Your task to perform on an android device: Clear the cart on target. Add "asus zenbook" to the cart on target Image 0: 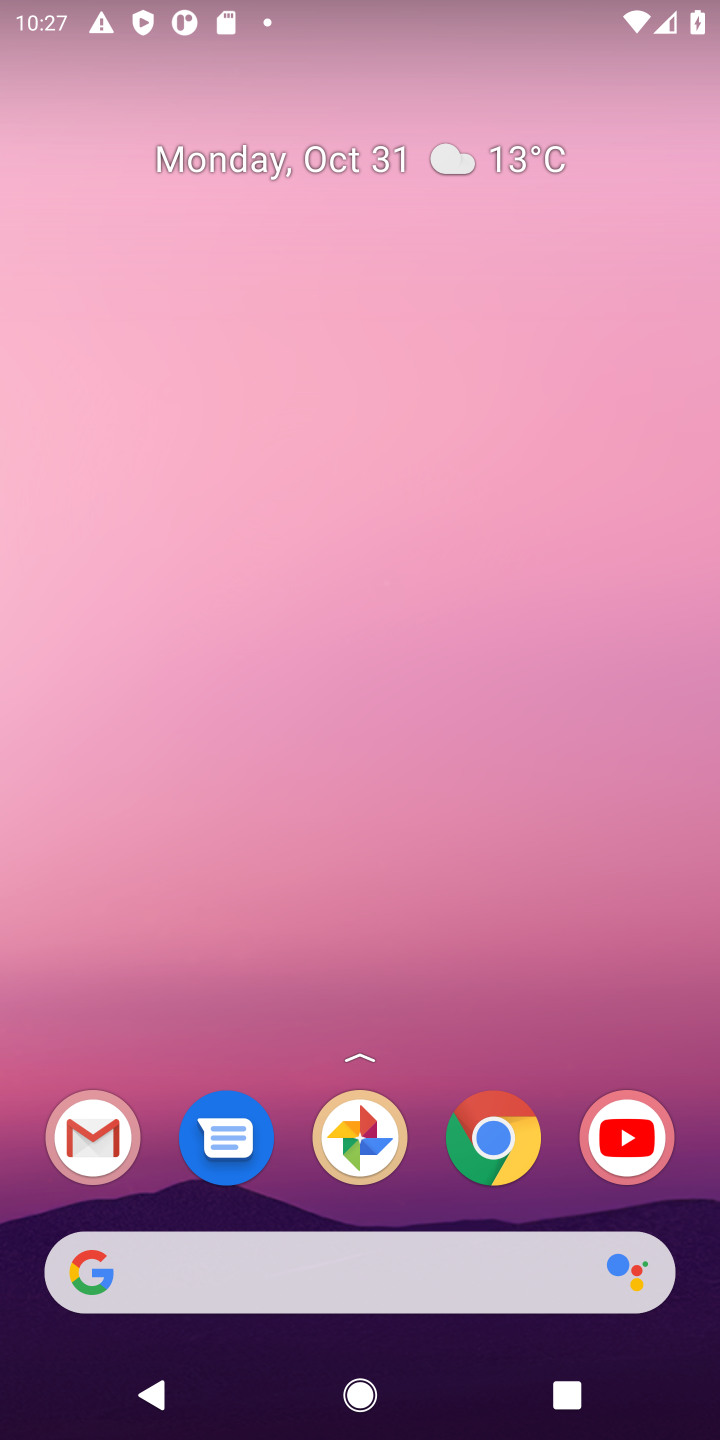
Step 0: click (474, 1157)
Your task to perform on an android device: Clear the cart on target. Add "asus zenbook" to the cart on target Image 1: 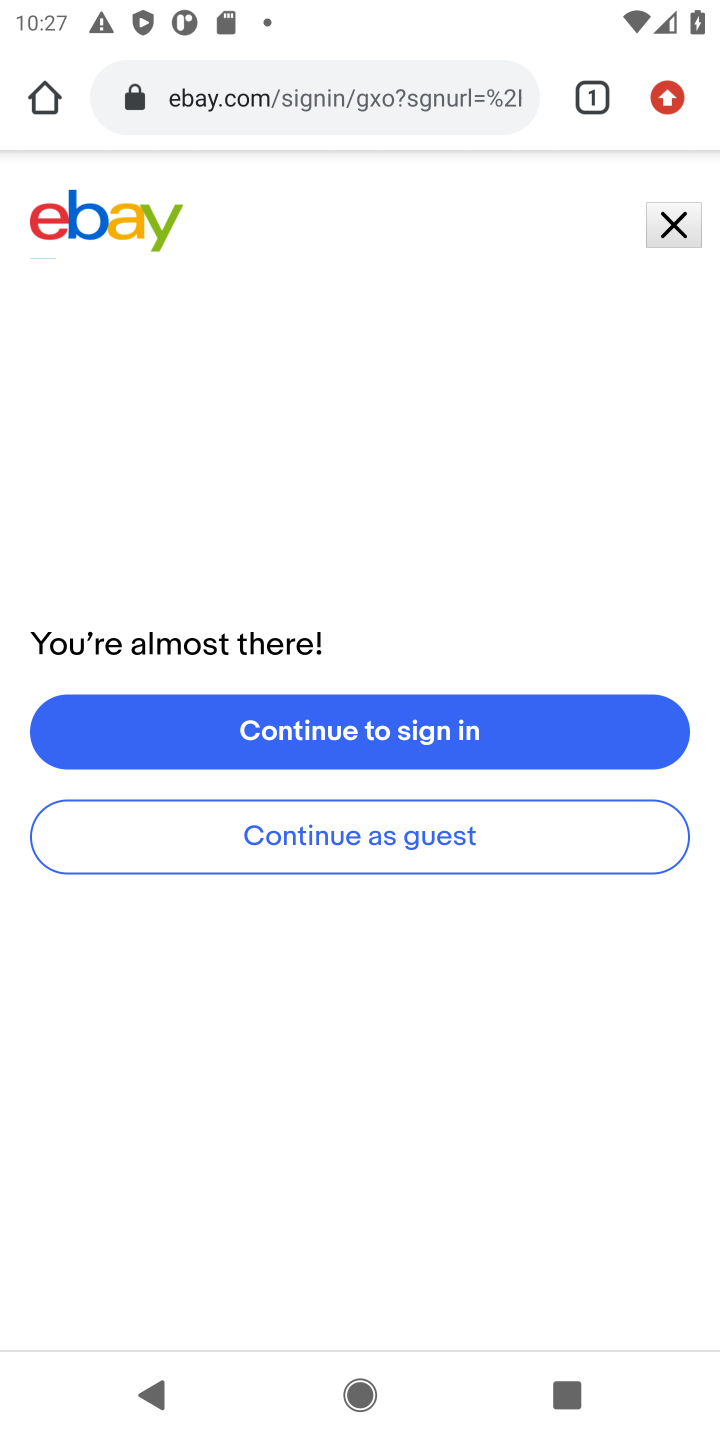
Step 1: click (251, 90)
Your task to perform on an android device: Clear the cart on target. Add "asus zenbook" to the cart on target Image 2: 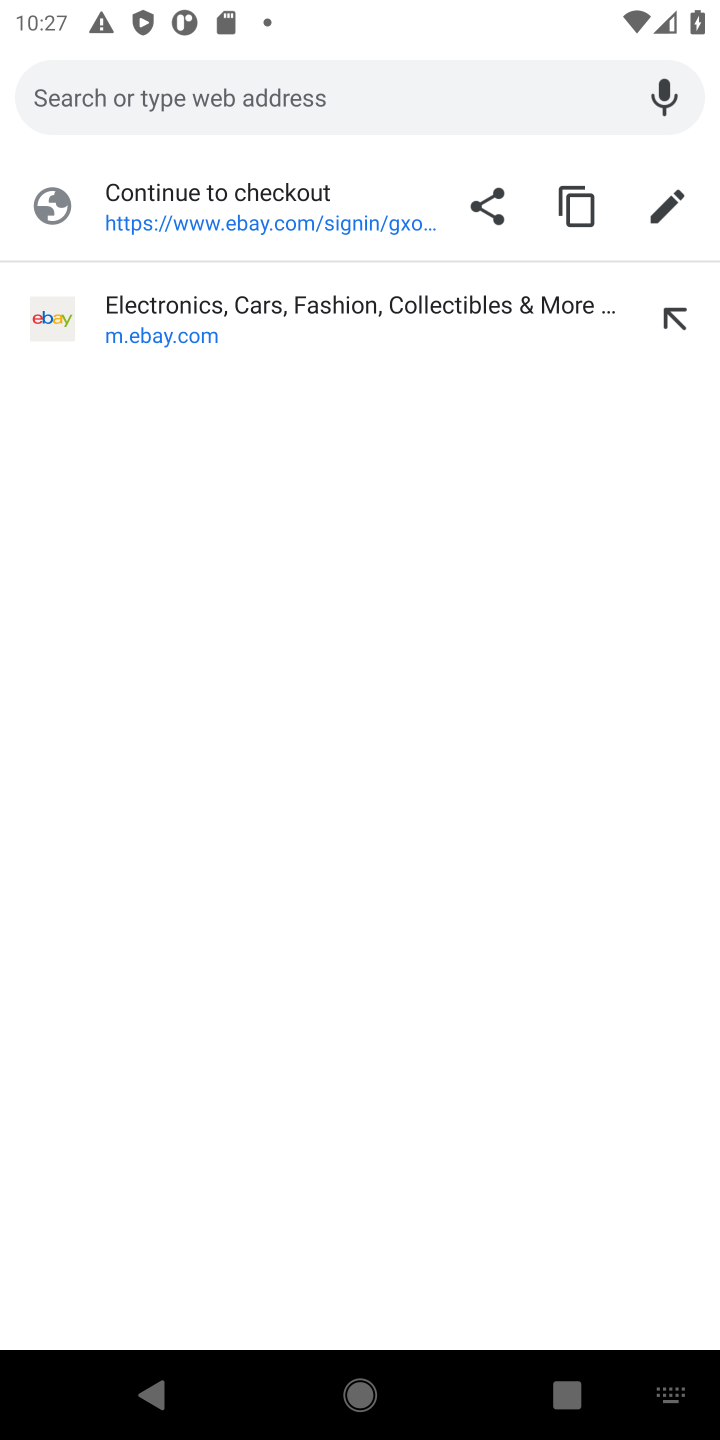
Step 2: type "target"
Your task to perform on an android device: Clear the cart on target. Add "asus zenbook" to the cart on target Image 3: 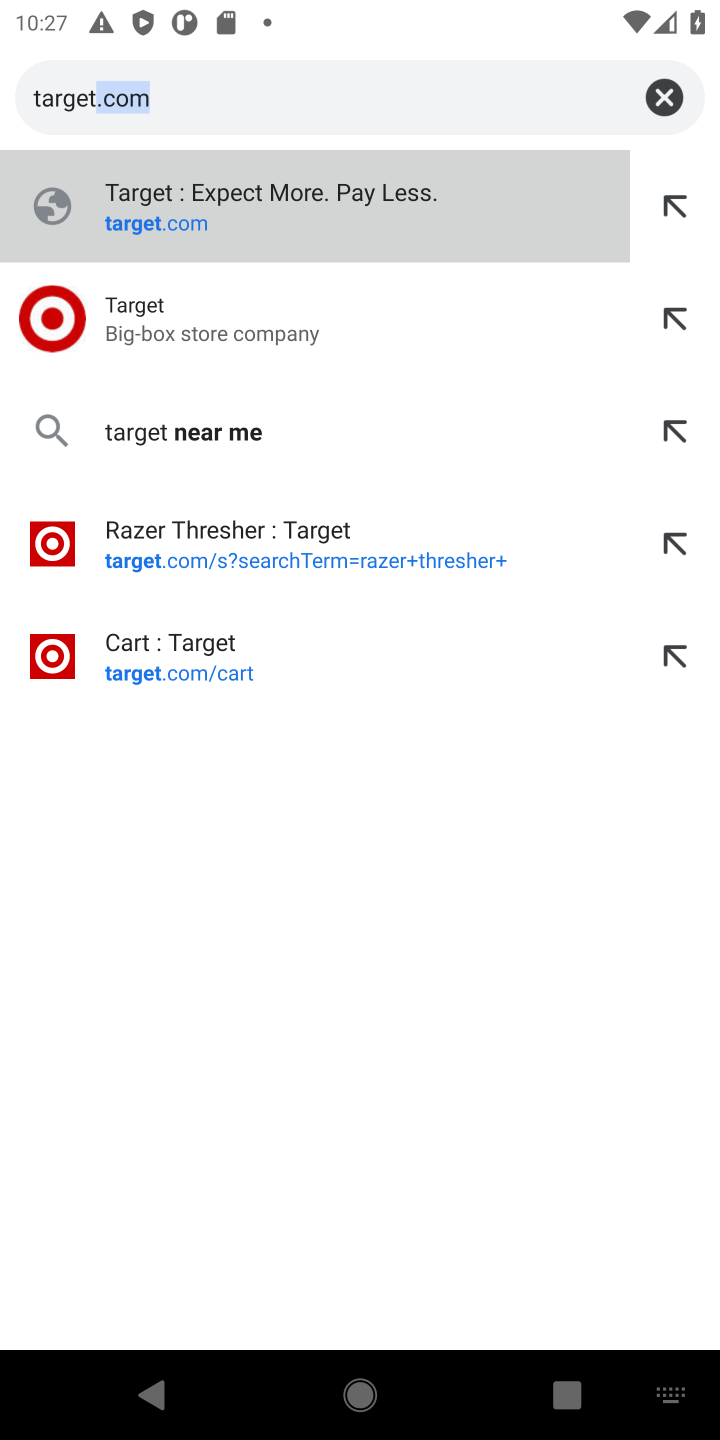
Step 3: click (118, 303)
Your task to perform on an android device: Clear the cart on target. Add "asus zenbook" to the cart on target Image 4: 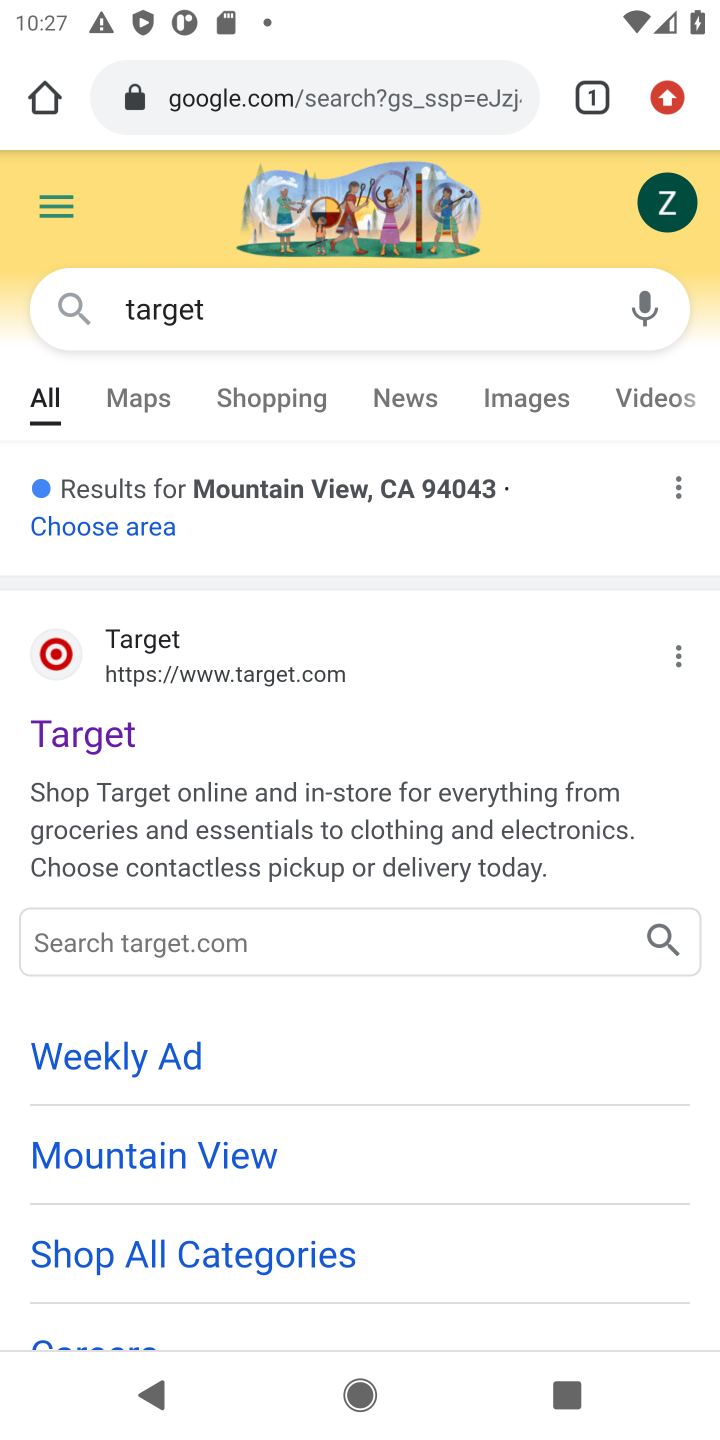
Step 4: click (79, 746)
Your task to perform on an android device: Clear the cart on target. Add "asus zenbook" to the cart on target Image 5: 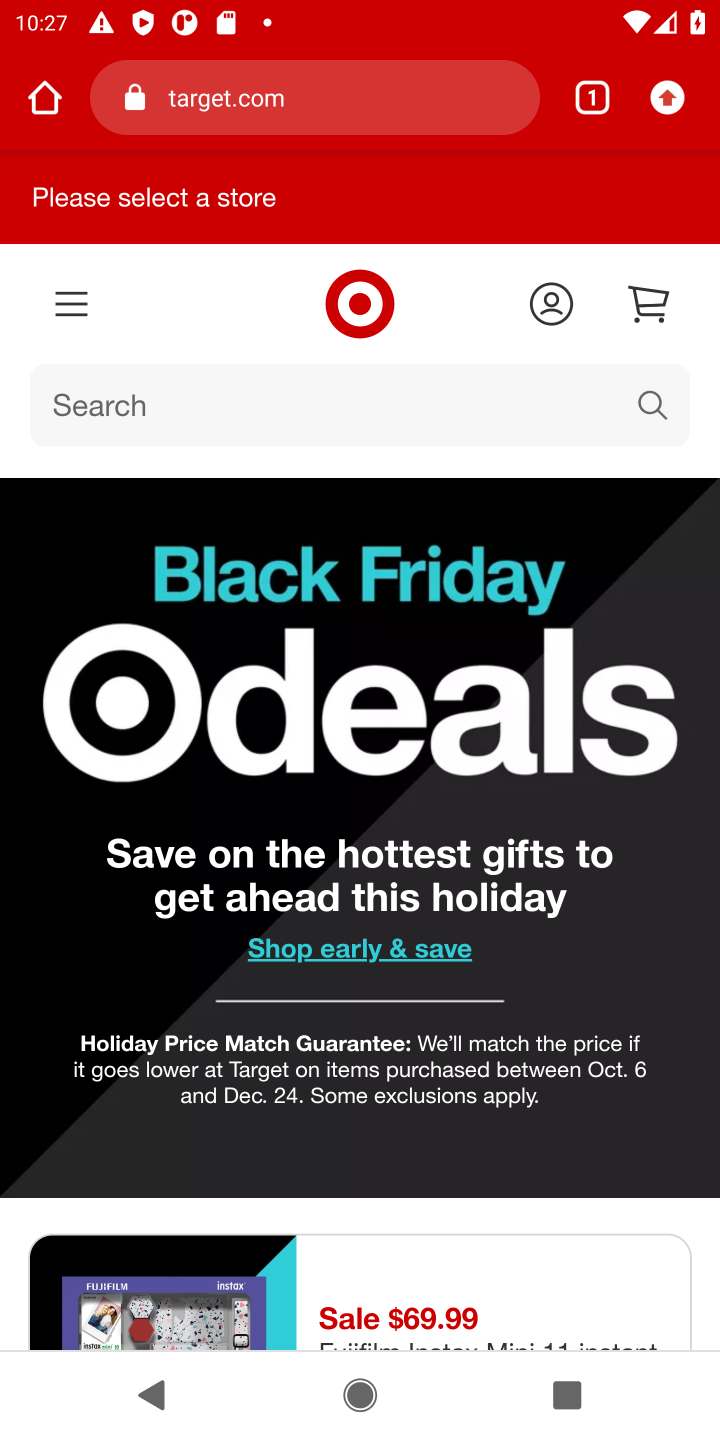
Step 5: click (293, 390)
Your task to perform on an android device: Clear the cart on target. Add "asus zenbook" to the cart on target Image 6: 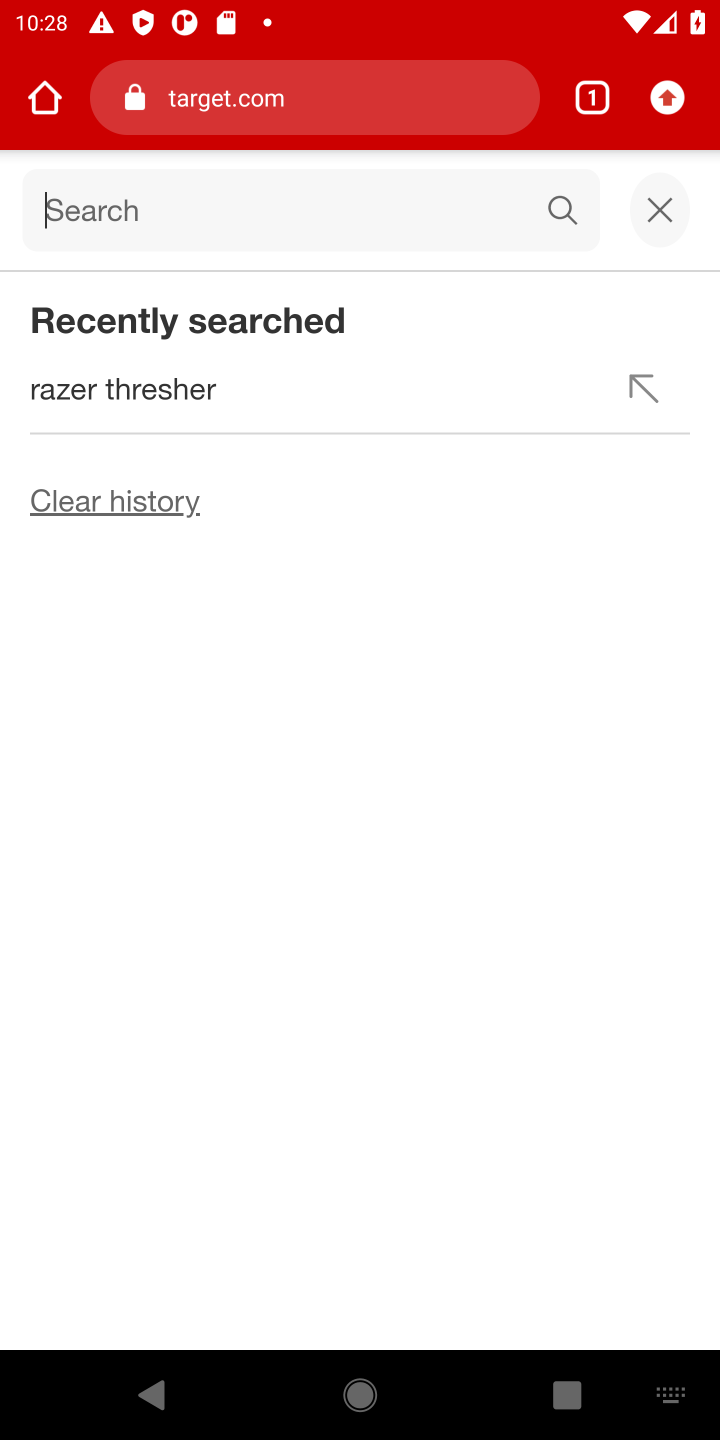
Step 6: type "asus zenbook"
Your task to perform on an android device: Clear the cart on target. Add "asus zenbook" to the cart on target Image 7: 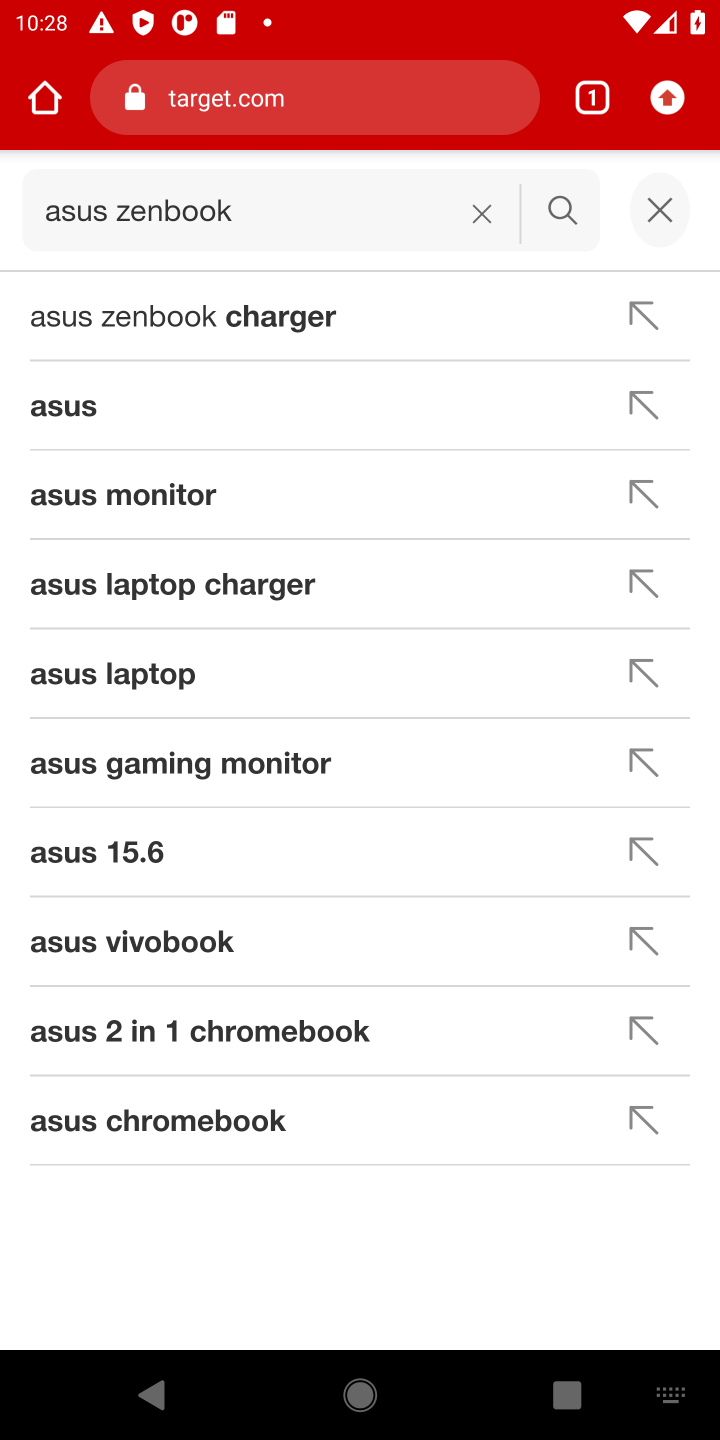
Step 7: click (567, 196)
Your task to perform on an android device: Clear the cart on target. Add "asus zenbook" to the cart on target Image 8: 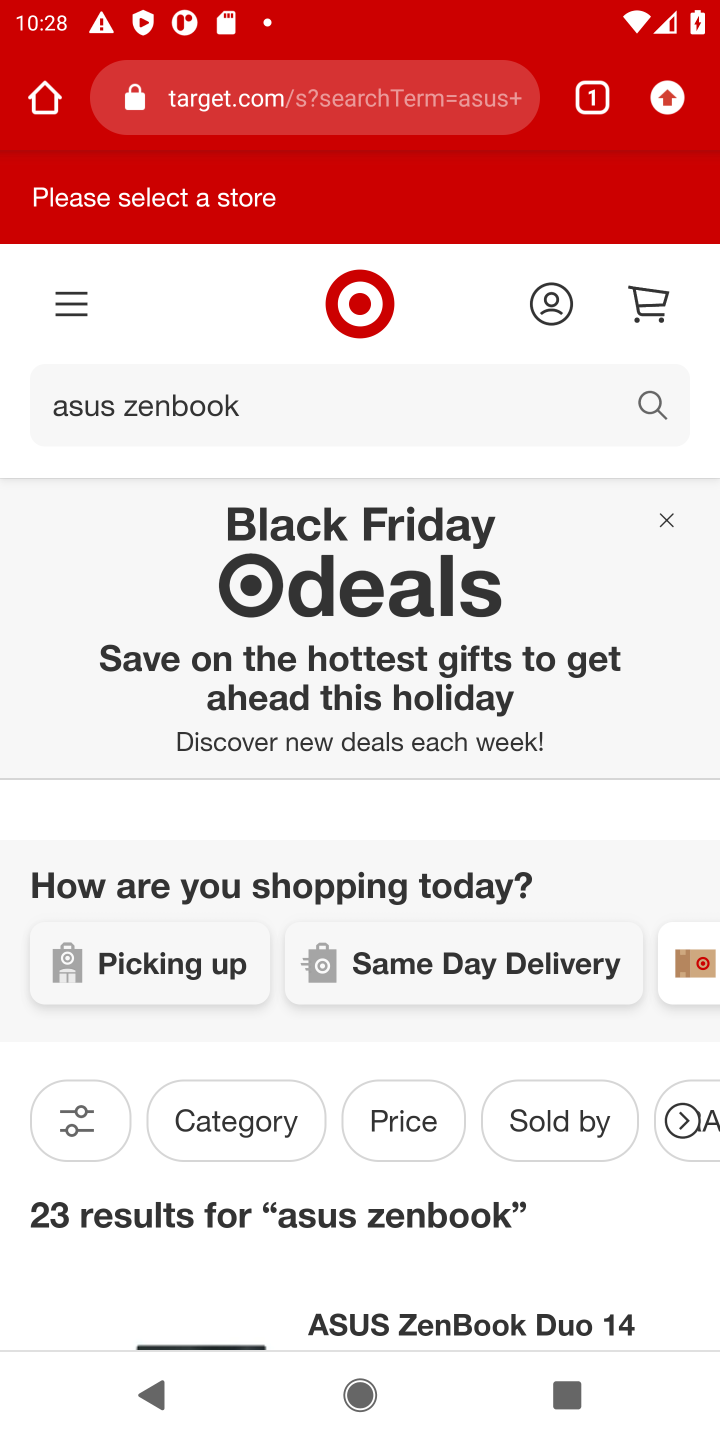
Step 8: drag from (467, 1245) to (518, 618)
Your task to perform on an android device: Clear the cart on target. Add "asus zenbook" to the cart on target Image 9: 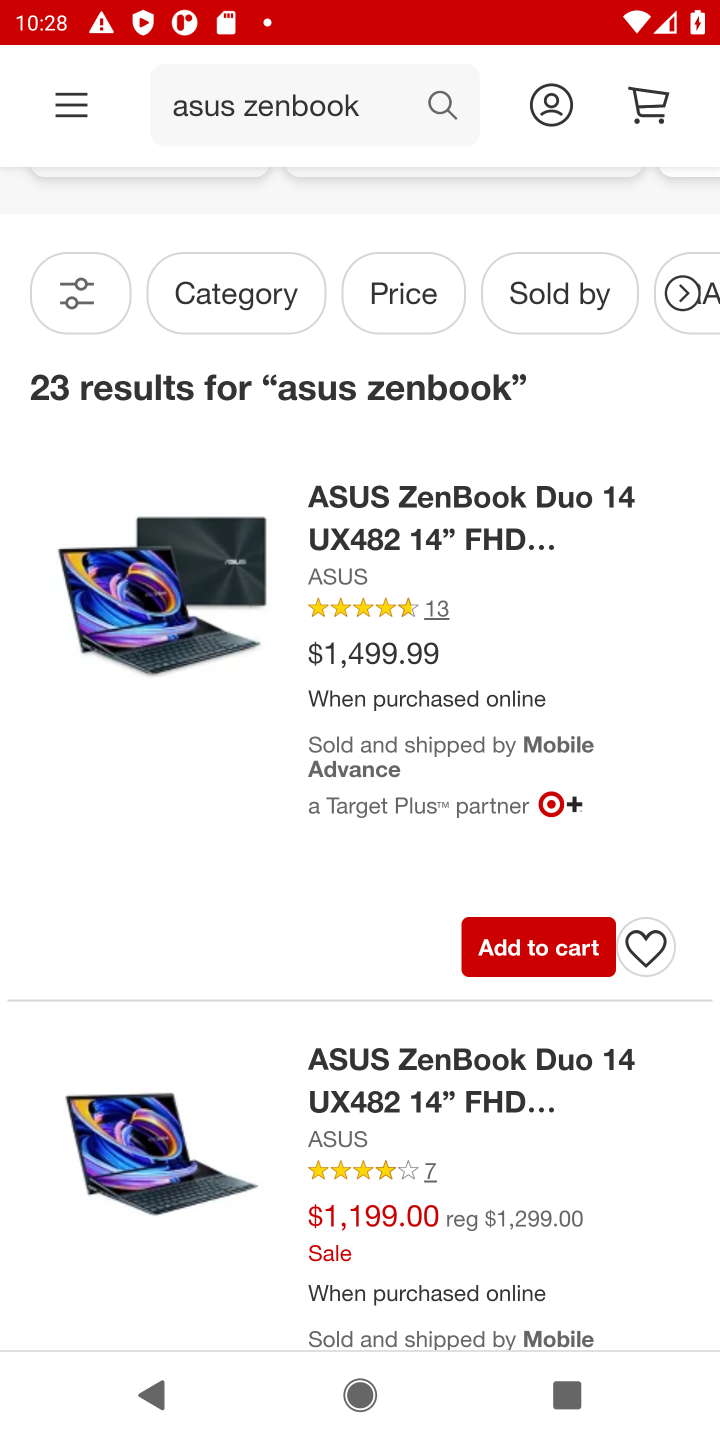
Step 9: click (516, 933)
Your task to perform on an android device: Clear the cart on target. Add "asus zenbook" to the cart on target Image 10: 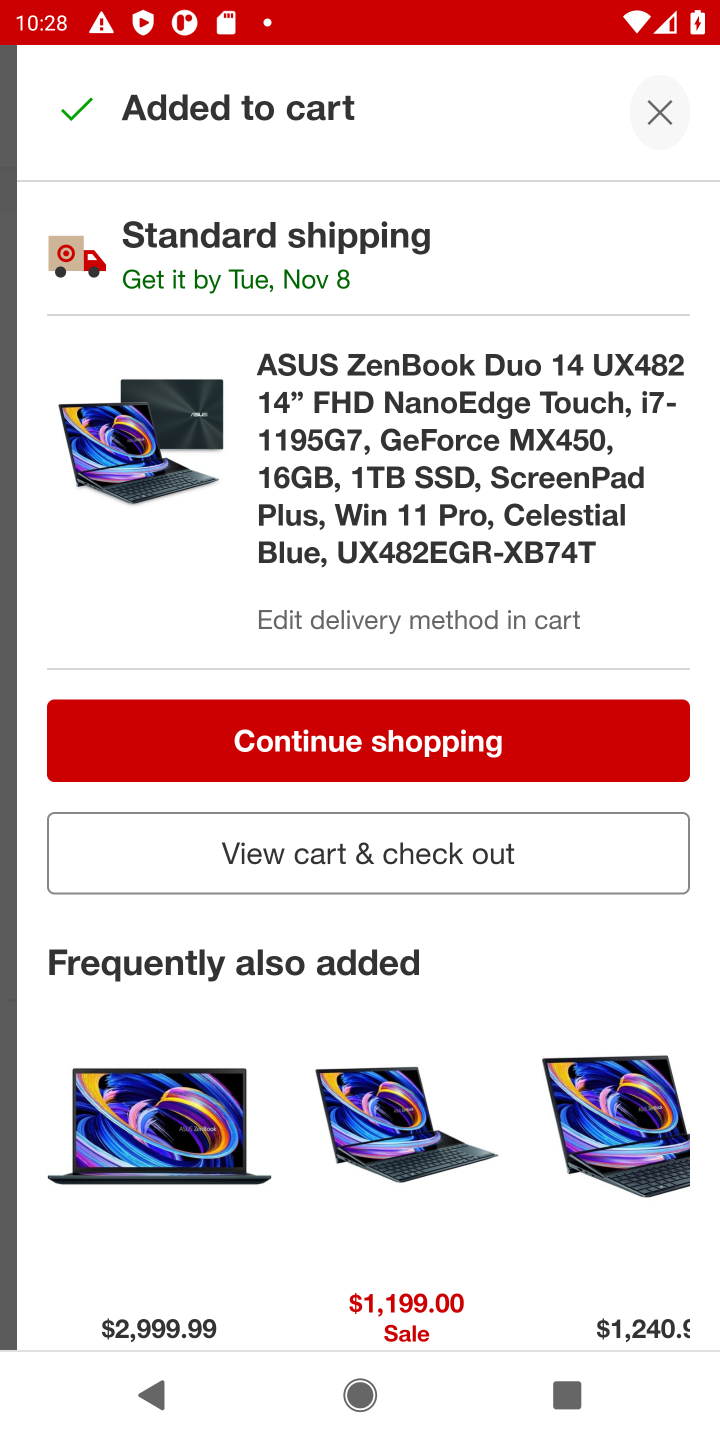
Step 10: task complete